Your task to perform on an android device: install app "YouTube Kids" Image 0: 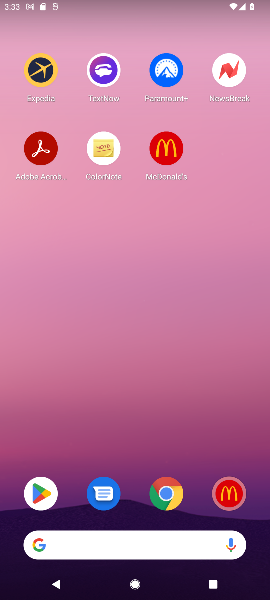
Step 0: click (49, 490)
Your task to perform on an android device: install app "YouTube Kids" Image 1: 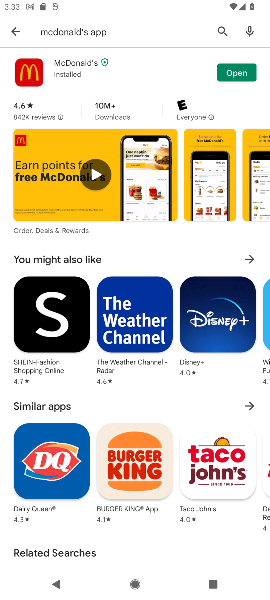
Step 1: click (222, 26)
Your task to perform on an android device: install app "YouTube Kids" Image 2: 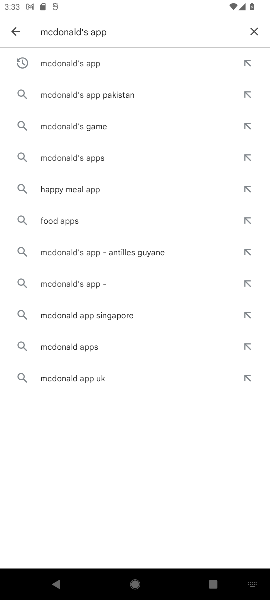
Step 2: click (259, 35)
Your task to perform on an android device: install app "YouTube Kids" Image 3: 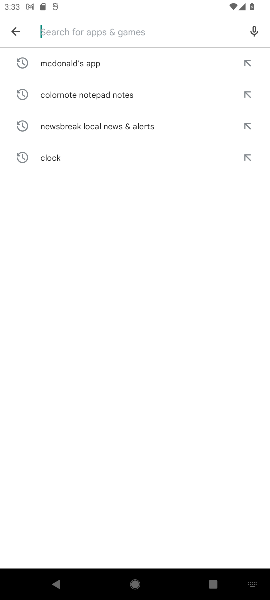
Step 3: type "YouTube Kids"
Your task to perform on an android device: install app "YouTube Kids" Image 4: 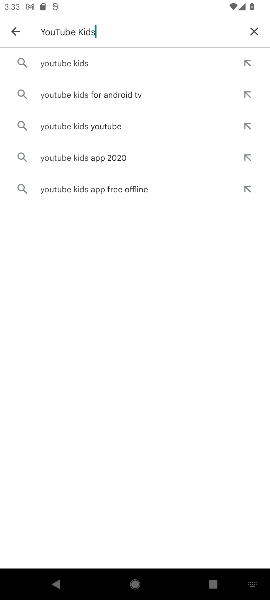
Step 4: click (77, 60)
Your task to perform on an android device: install app "YouTube Kids" Image 5: 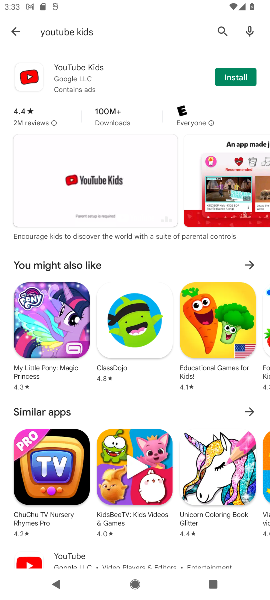
Step 5: click (241, 76)
Your task to perform on an android device: install app "YouTube Kids" Image 6: 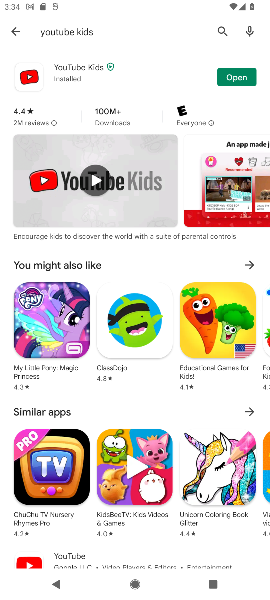
Step 6: task complete